Your task to perform on an android device: Go to CNN.com Image 0: 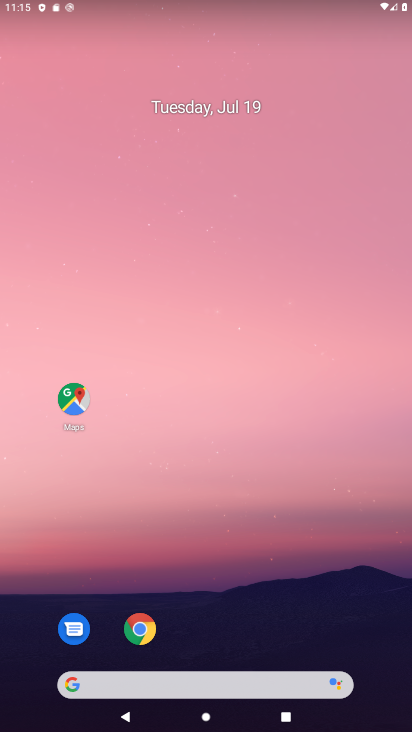
Step 0: drag from (325, 631) to (286, 59)
Your task to perform on an android device: Go to CNN.com Image 1: 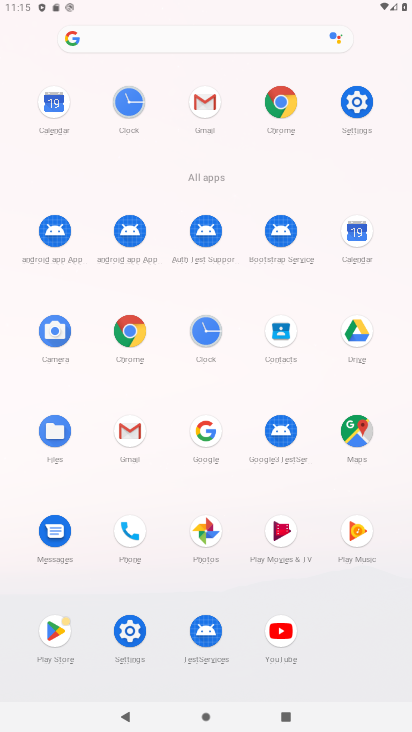
Step 1: click (283, 97)
Your task to perform on an android device: Go to CNN.com Image 2: 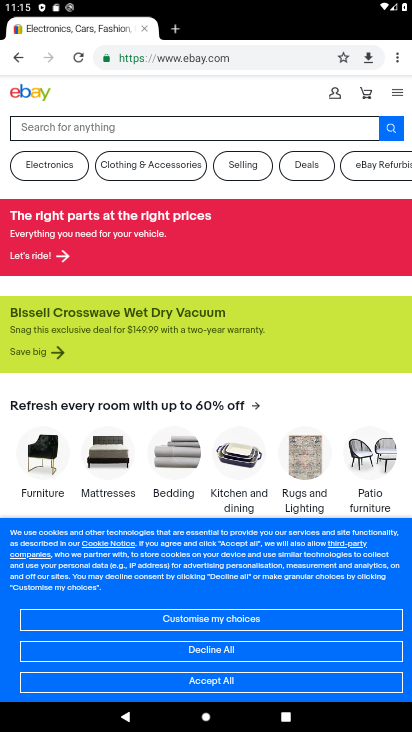
Step 2: click (211, 61)
Your task to perform on an android device: Go to CNN.com Image 3: 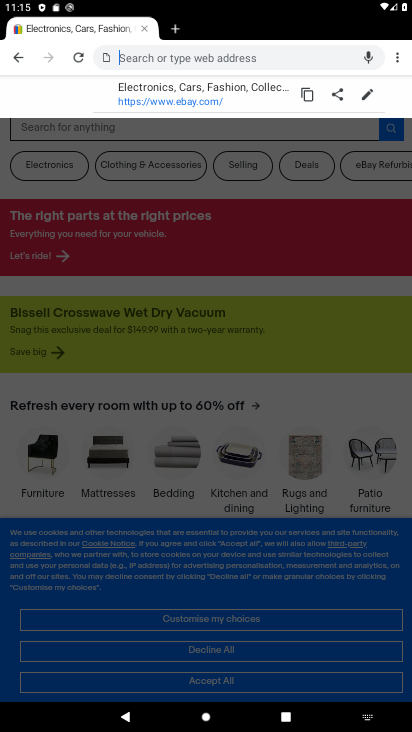
Step 3: type "cnn.com"
Your task to perform on an android device: Go to CNN.com Image 4: 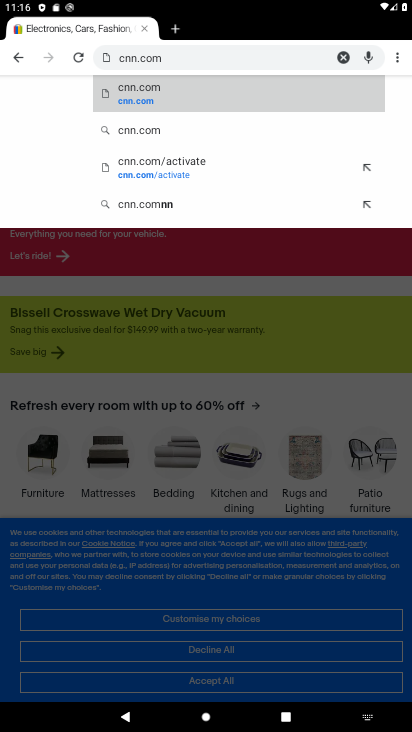
Step 4: click (136, 94)
Your task to perform on an android device: Go to CNN.com Image 5: 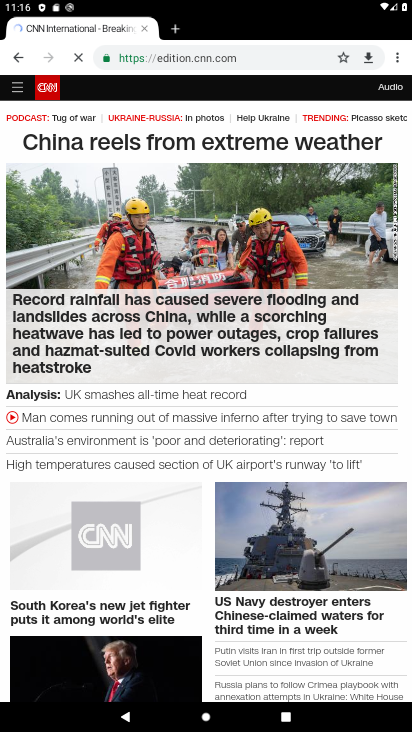
Step 5: task complete